Your task to perform on an android device: check storage Image 0: 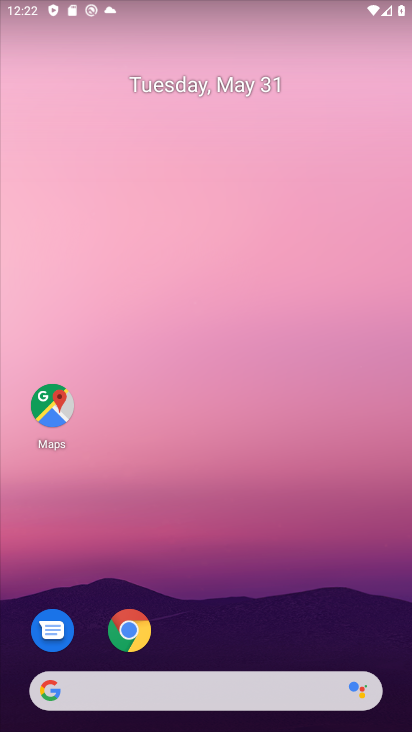
Step 0: drag from (205, 479) to (245, 275)
Your task to perform on an android device: check storage Image 1: 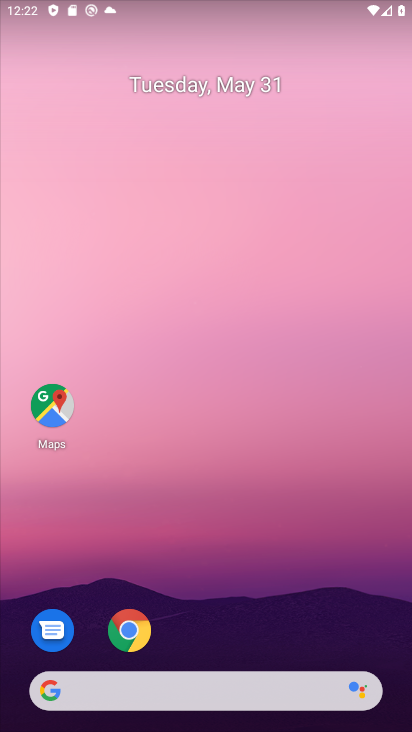
Step 1: drag from (202, 367) to (268, 202)
Your task to perform on an android device: check storage Image 2: 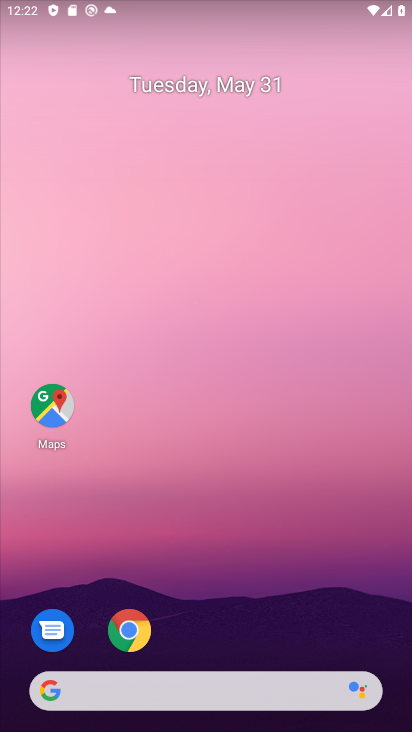
Step 2: drag from (197, 659) to (266, 190)
Your task to perform on an android device: check storage Image 3: 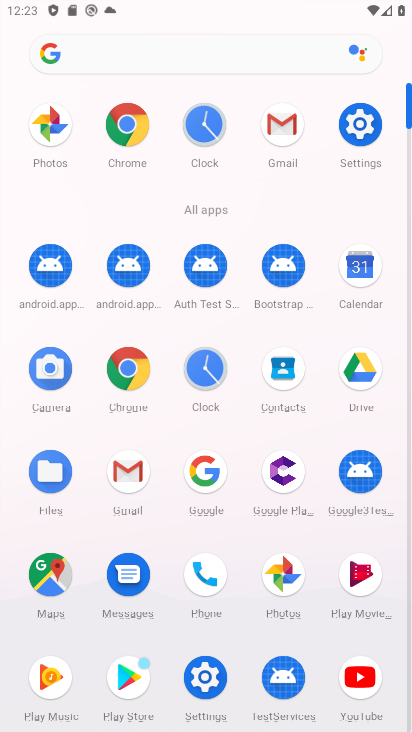
Step 3: click (360, 125)
Your task to perform on an android device: check storage Image 4: 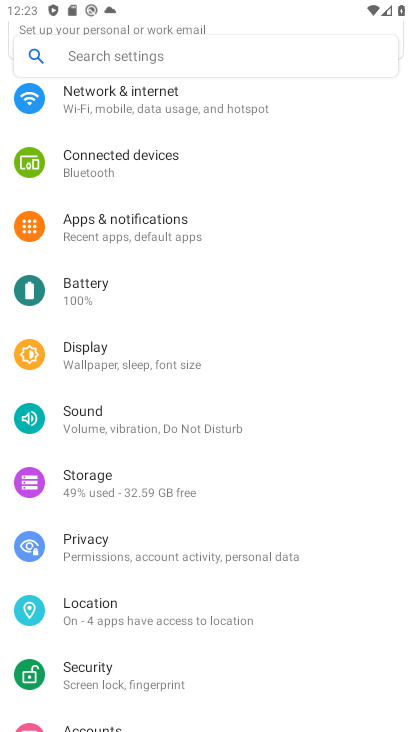
Step 4: click (129, 487)
Your task to perform on an android device: check storage Image 5: 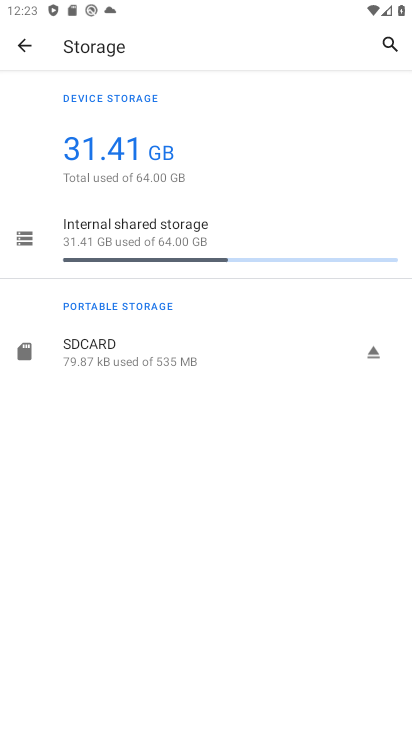
Step 5: task complete